Your task to perform on an android device: Clear the shopping cart on walmart.com. Image 0: 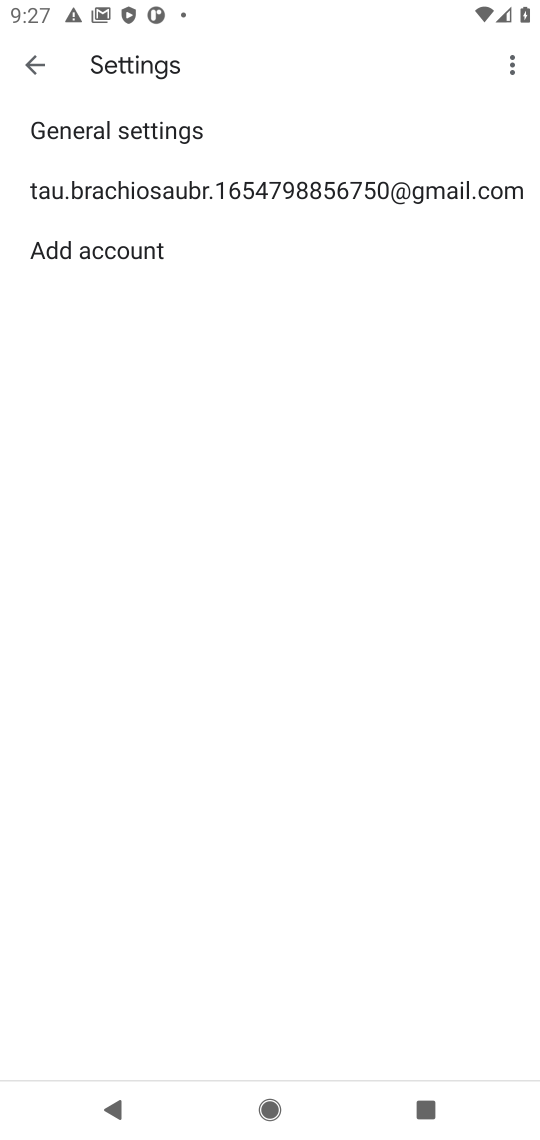
Step 0: press home button
Your task to perform on an android device: Clear the shopping cart on walmart.com. Image 1: 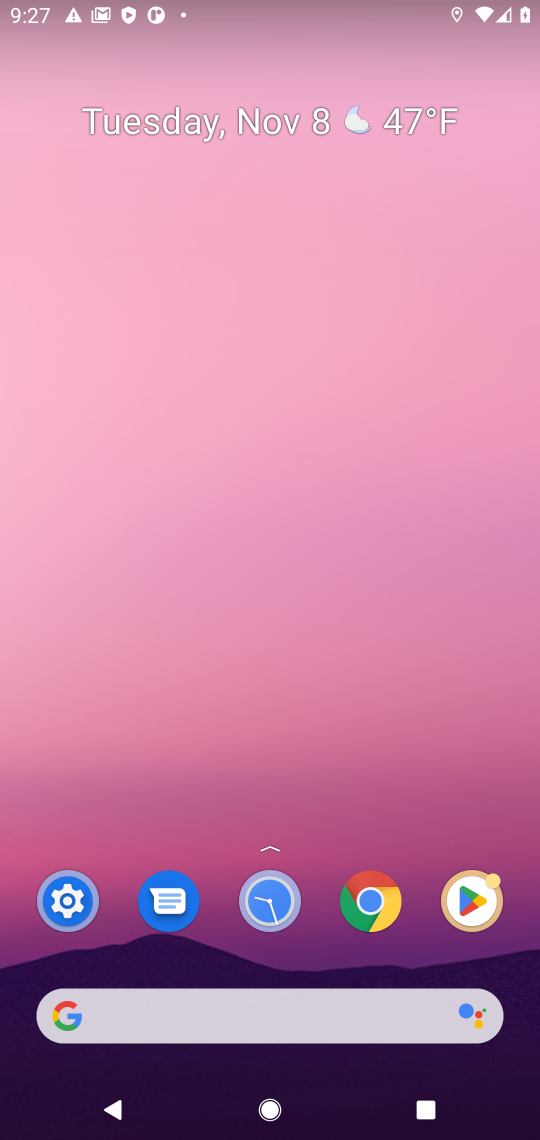
Step 1: click (380, 896)
Your task to perform on an android device: Clear the shopping cart on walmart.com. Image 2: 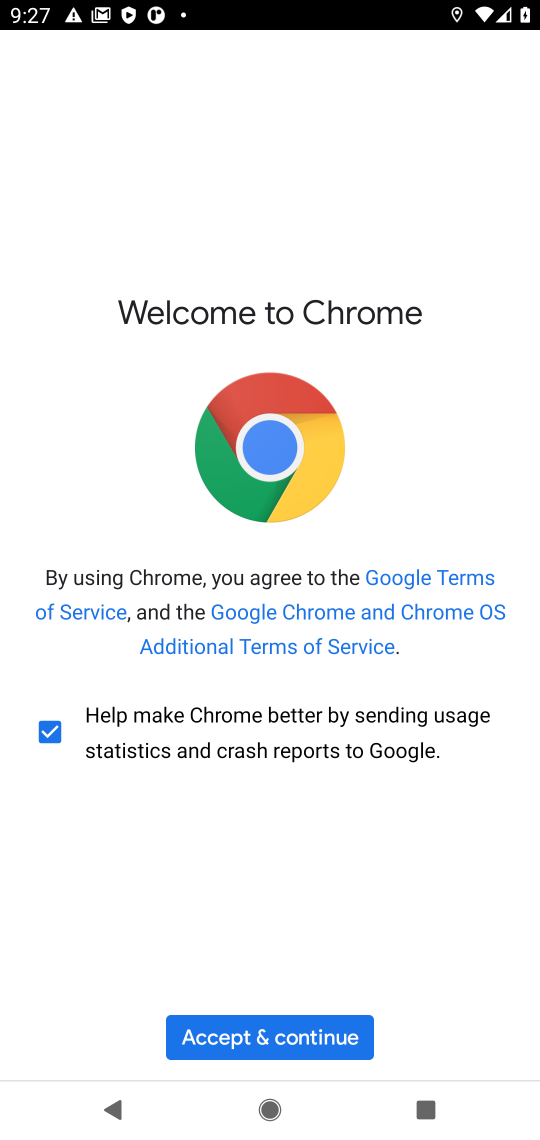
Step 2: click (312, 1033)
Your task to perform on an android device: Clear the shopping cart on walmart.com. Image 3: 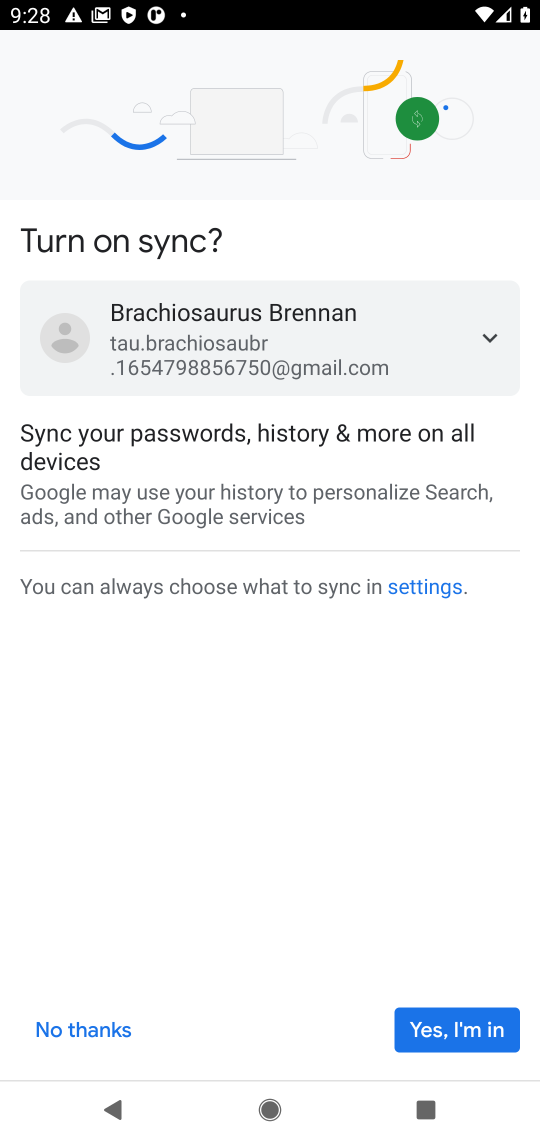
Step 3: click (434, 1020)
Your task to perform on an android device: Clear the shopping cart on walmart.com. Image 4: 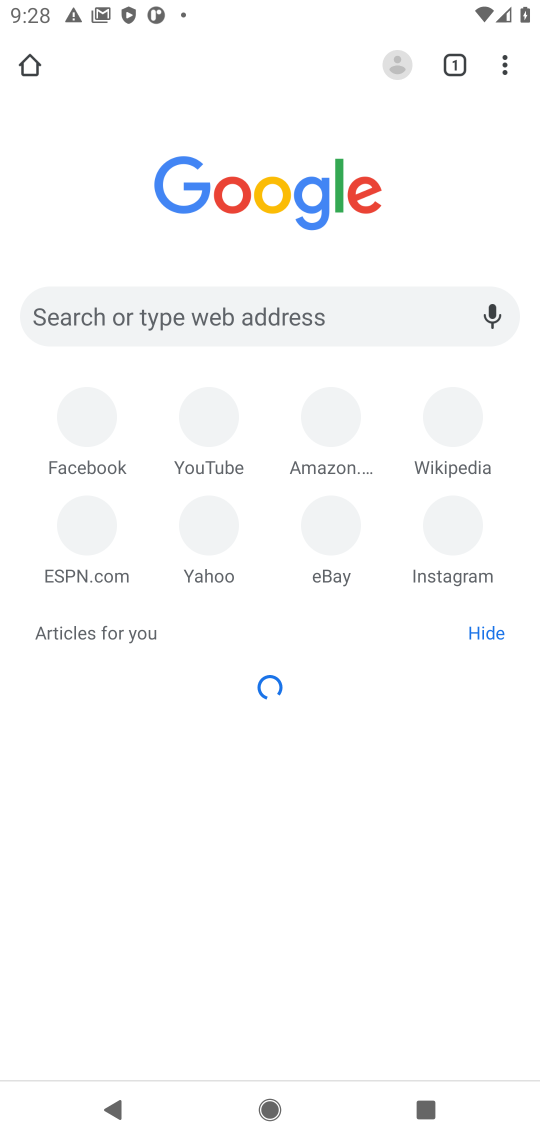
Step 4: click (327, 319)
Your task to perform on an android device: Clear the shopping cart on walmart.com. Image 5: 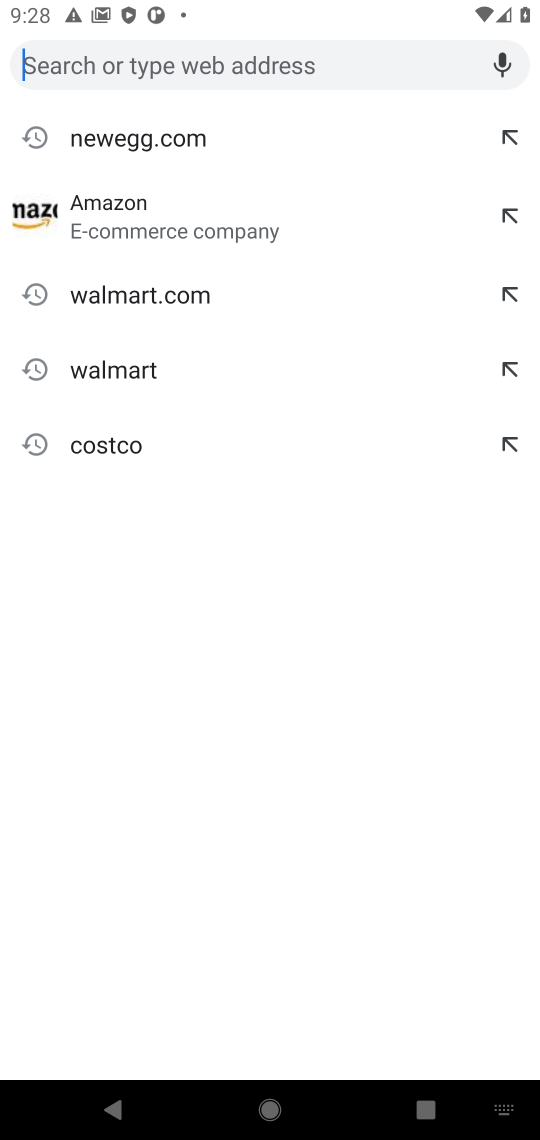
Step 5: click (177, 293)
Your task to perform on an android device: Clear the shopping cart on walmart.com. Image 6: 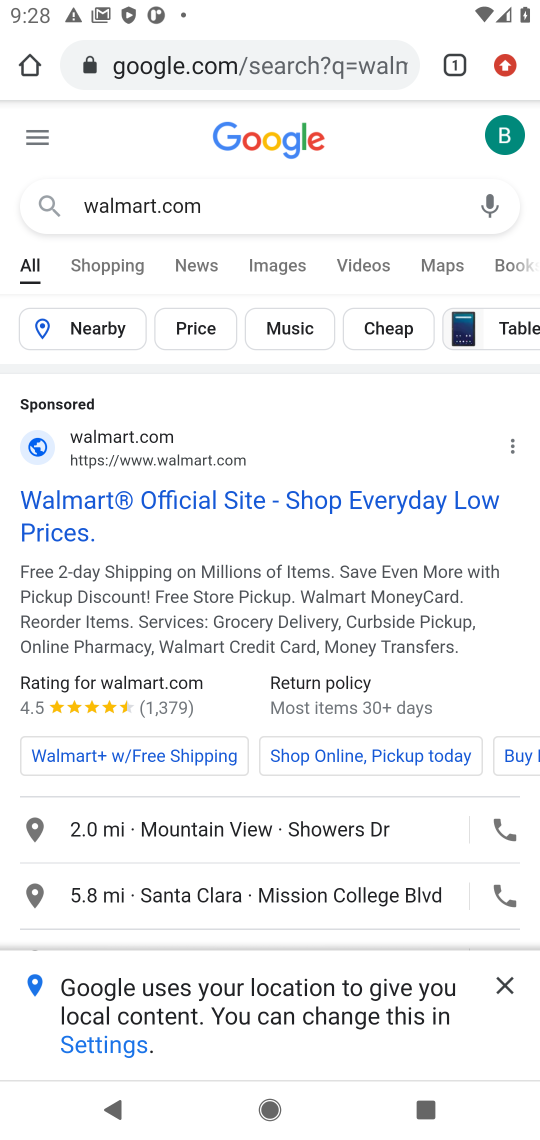
Step 6: click (189, 462)
Your task to perform on an android device: Clear the shopping cart on walmart.com. Image 7: 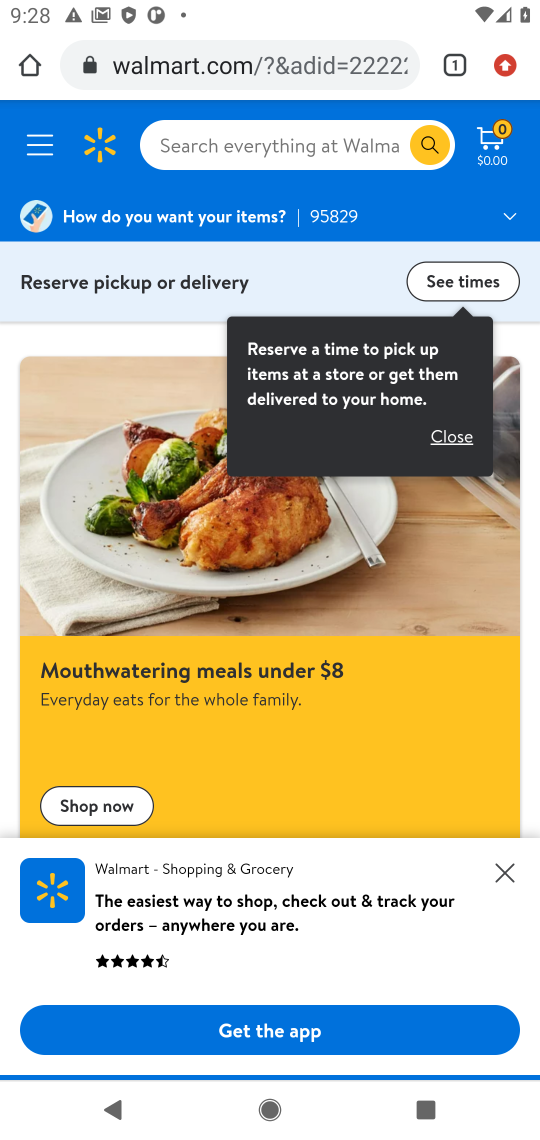
Step 7: click (504, 148)
Your task to perform on an android device: Clear the shopping cart on walmart.com. Image 8: 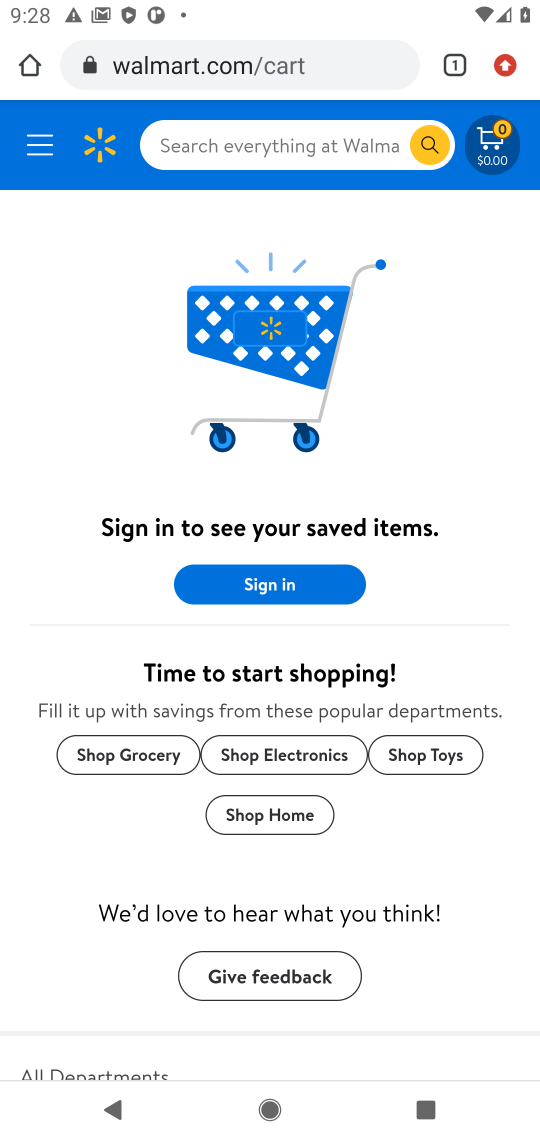
Step 8: task complete